Your task to perform on an android device: check the backup settings in the google photos Image 0: 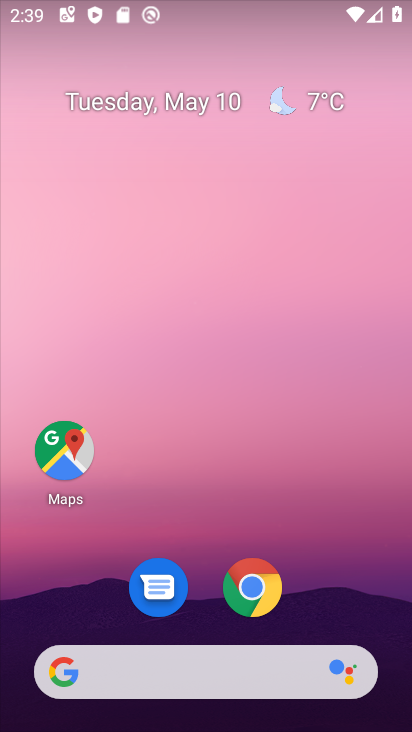
Step 0: drag from (325, 562) to (260, 56)
Your task to perform on an android device: check the backup settings in the google photos Image 1: 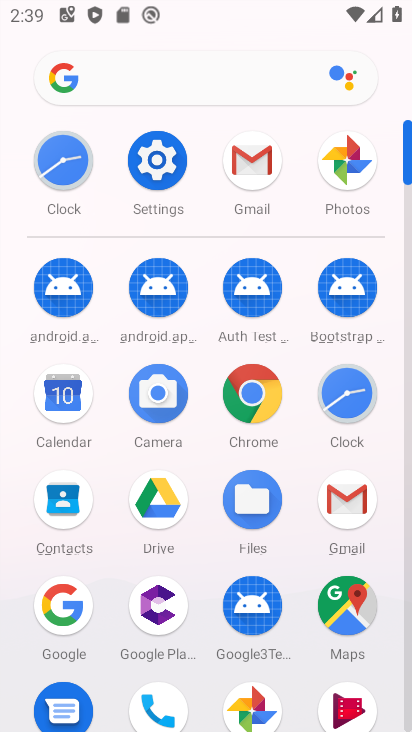
Step 1: drag from (203, 565) to (179, 310)
Your task to perform on an android device: check the backup settings in the google photos Image 2: 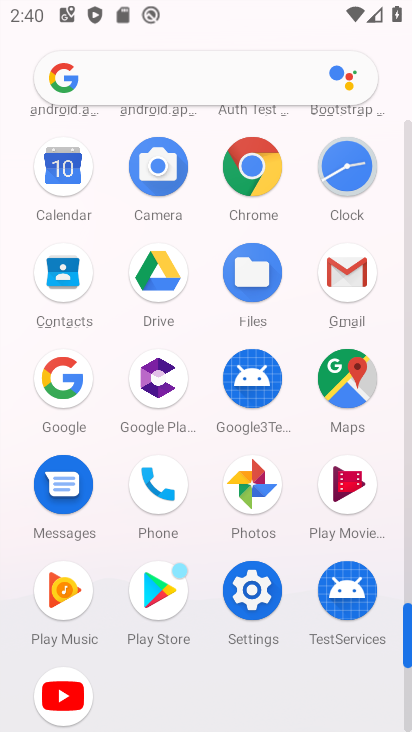
Step 2: click (242, 466)
Your task to perform on an android device: check the backup settings in the google photos Image 3: 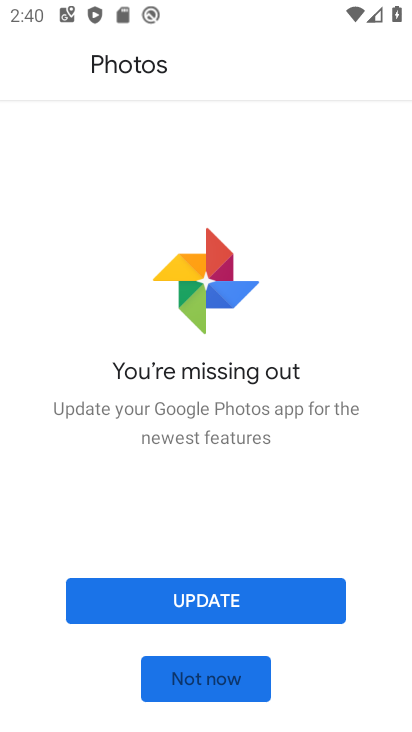
Step 3: click (201, 689)
Your task to perform on an android device: check the backup settings in the google photos Image 4: 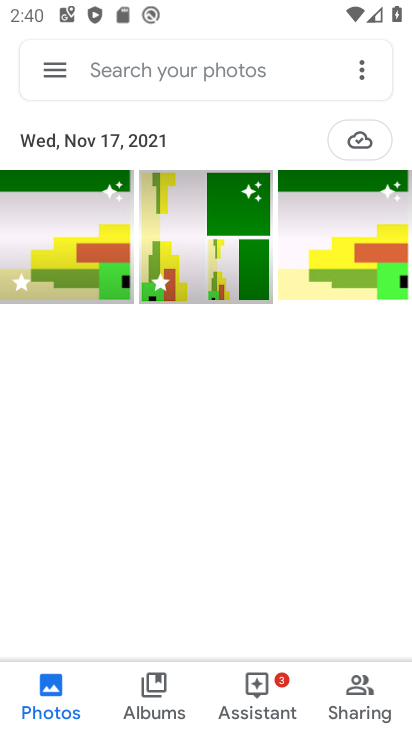
Step 4: click (55, 54)
Your task to perform on an android device: check the backup settings in the google photos Image 5: 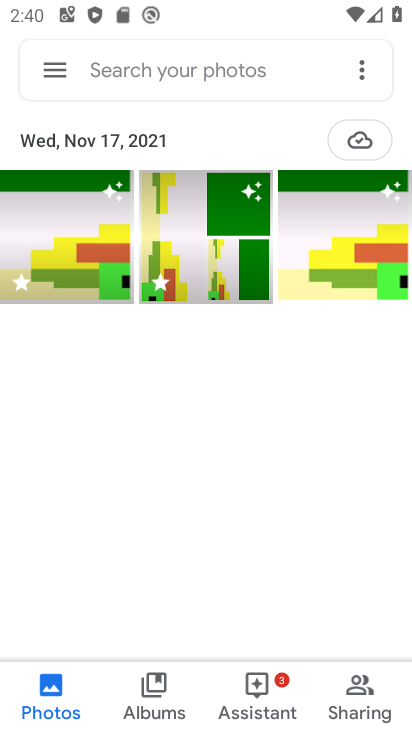
Step 5: click (58, 72)
Your task to perform on an android device: check the backup settings in the google photos Image 6: 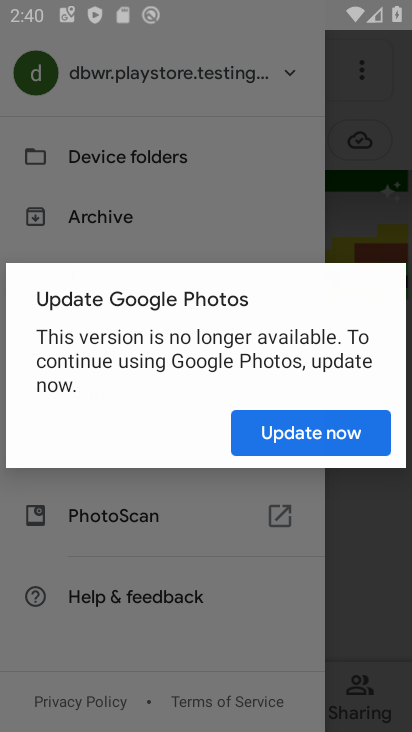
Step 6: drag from (138, 516) to (138, 225)
Your task to perform on an android device: check the backup settings in the google photos Image 7: 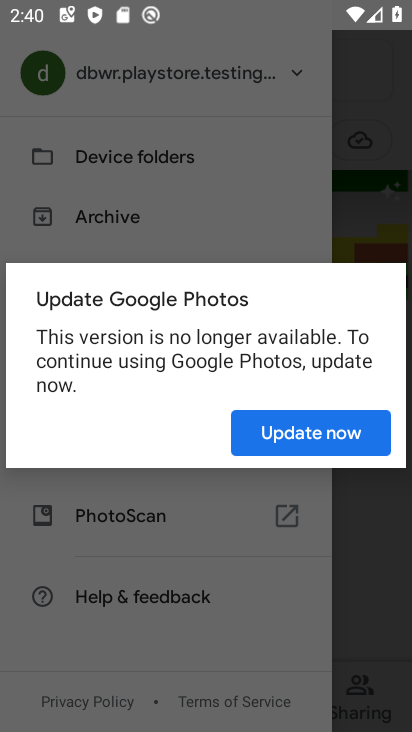
Step 7: drag from (179, 654) to (160, 304)
Your task to perform on an android device: check the backup settings in the google photos Image 8: 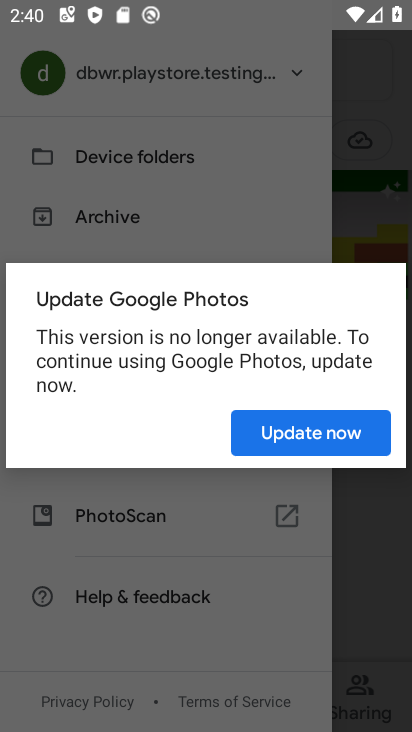
Step 8: click (352, 439)
Your task to perform on an android device: check the backup settings in the google photos Image 9: 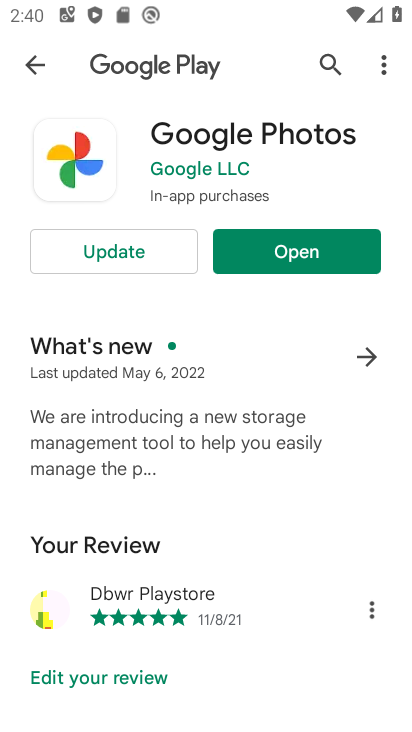
Step 9: click (301, 249)
Your task to perform on an android device: check the backup settings in the google photos Image 10: 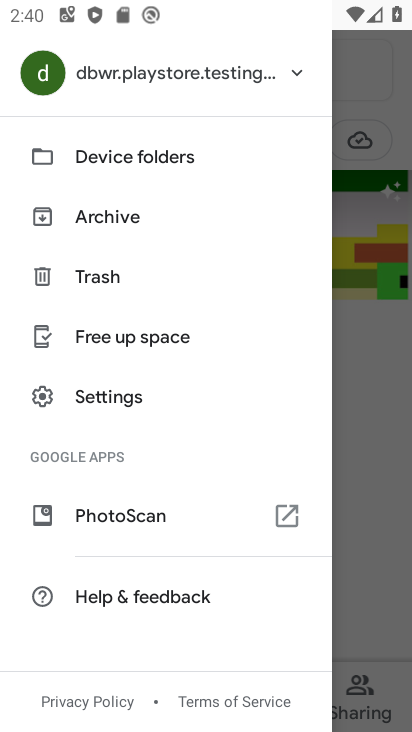
Step 10: click (131, 406)
Your task to perform on an android device: check the backup settings in the google photos Image 11: 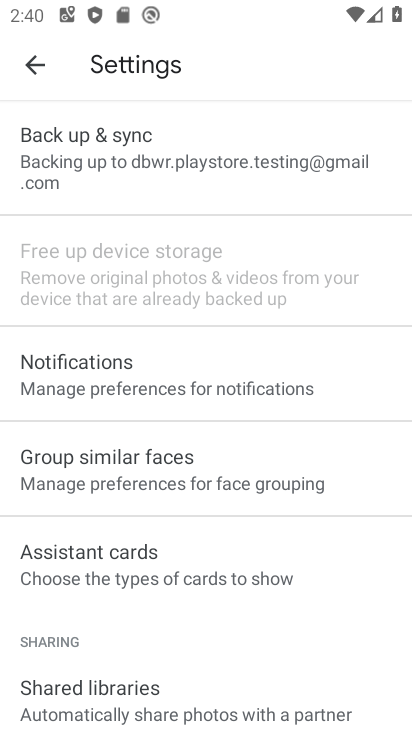
Step 11: click (128, 141)
Your task to perform on an android device: check the backup settings in the google photos Image 12: 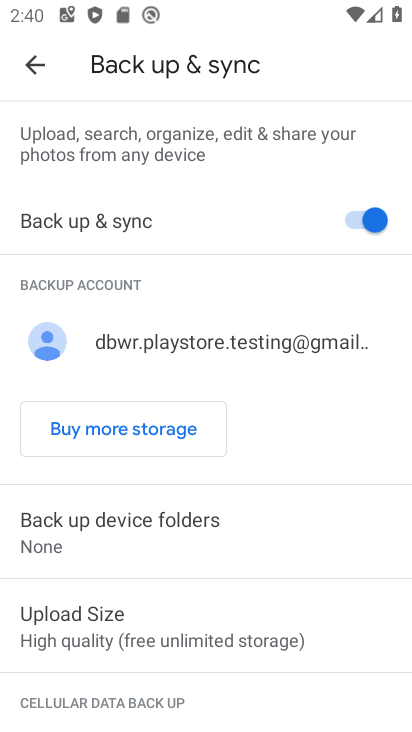
Step 12: task complete